Your task to perform on an android device: toggle improve location accuracy Image 0: 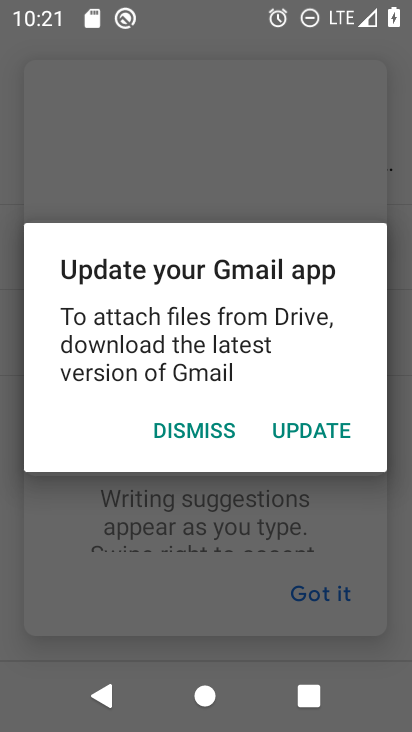
Step 0: press home button
Your task to perform on an android device: toggle improve location accuracy Image 1: 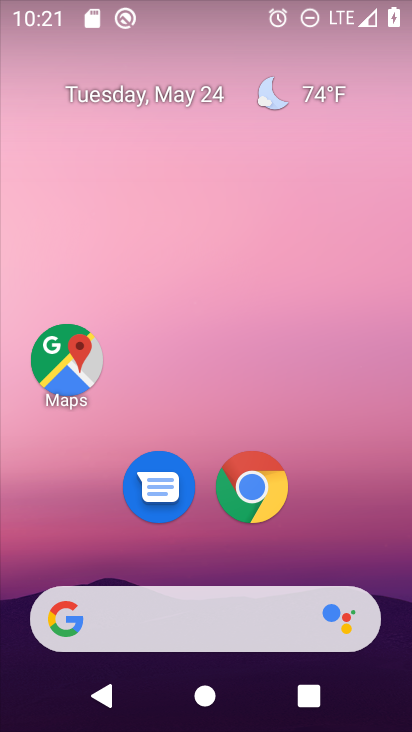
Step 1: drag from (371, 572) to (389, 12)
Your task to perform on an android device: toggle improve location accuracy Image 2: 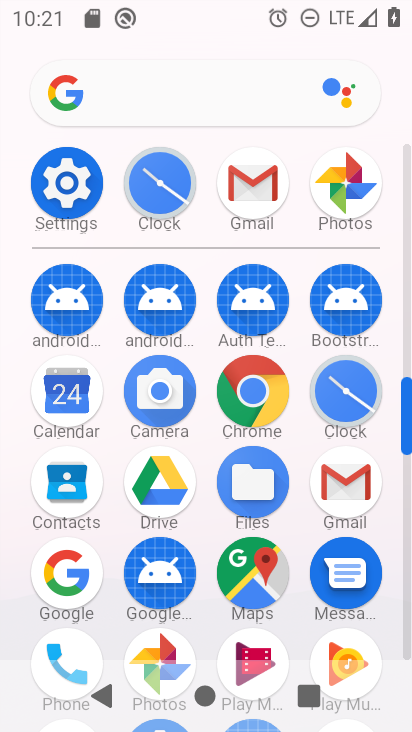
Step 2: click (62, 179)
Your task to perform on an android device: toggle improve location accuracy Image 3: 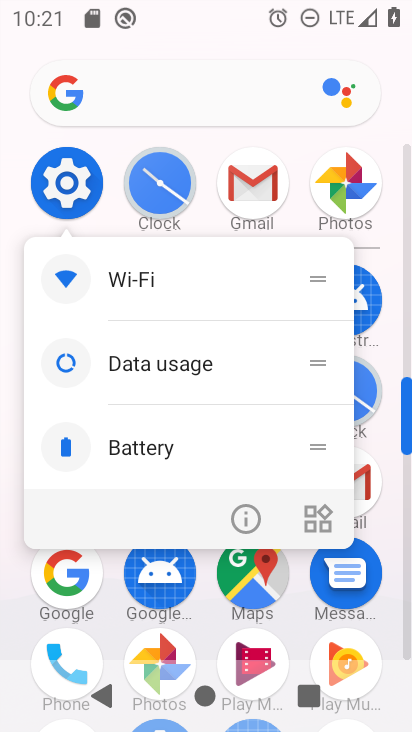
Step 3: click (68, 188)
Your task to perform on an android device: toggle improve location accuracy Image 4: 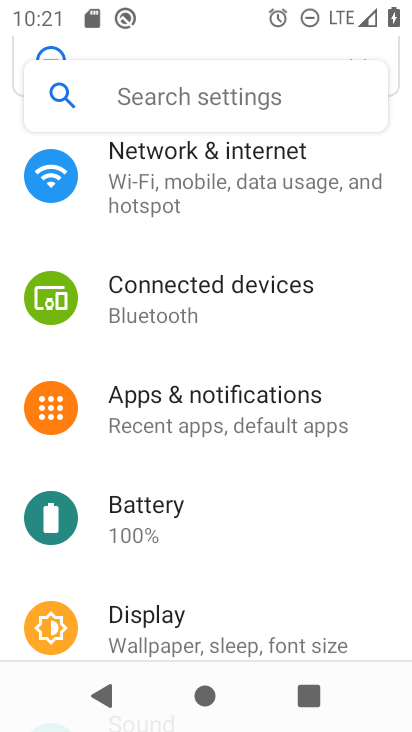
Step 4: drag from (358, 505) to (313, 72)
Your task to perform on an android device: toggle improve location accuracy Image 5: 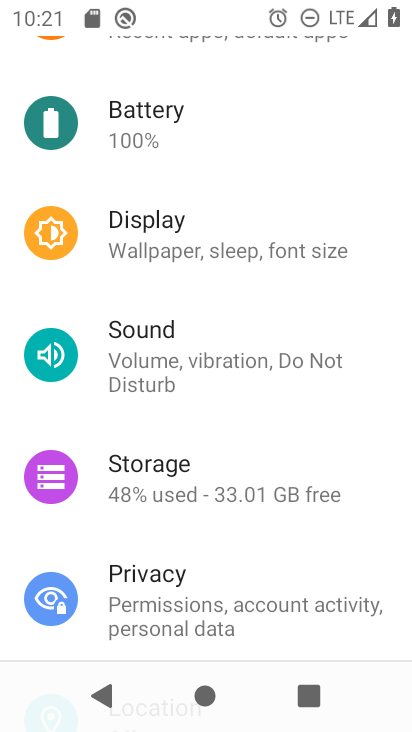
Step 5: drag from (316, 465) to (280, 72)
Your task to perform on an android device: toggle improve location accuracy Image 6: 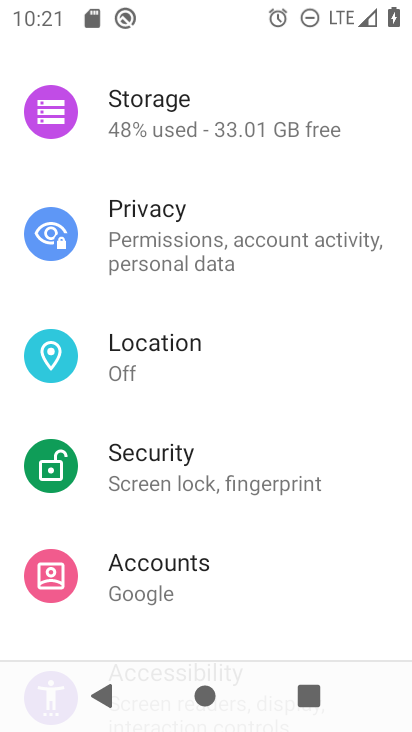
Step 6: click (109, 361)
Your task to perform on an android device: toggle improve location accuracy Image 7: 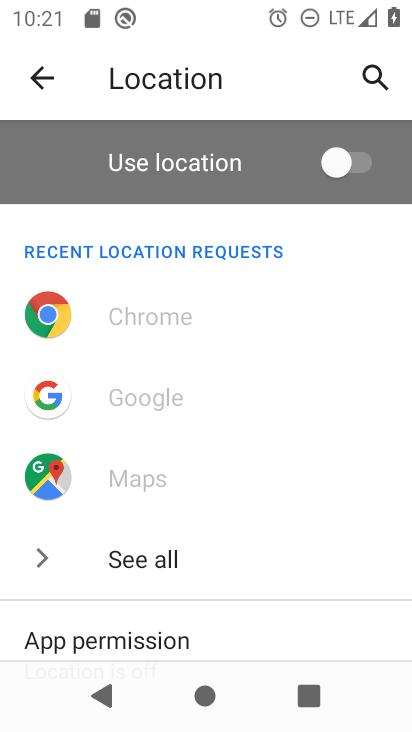
Step 7: drag from (278, 601) to (245, 15)
Your task to perform on an android device: toggle improve location accuracy Image 8: 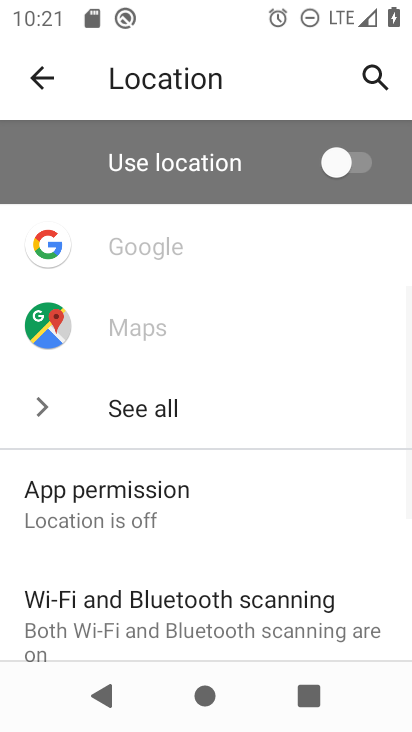
Step 8: drag from (299, 425) to (266, 90)
Your task to perform on an android device: toggle improve location accuracy Image 9: 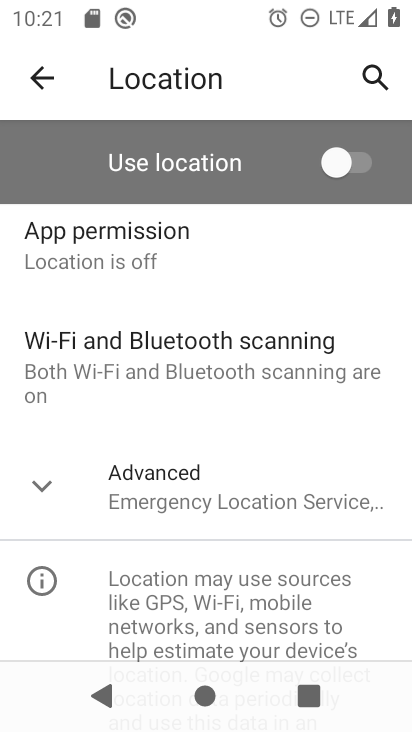
Step 9: click (42, 493)
Your task to perform on an android device: toggle improve location accuracy Image 10: 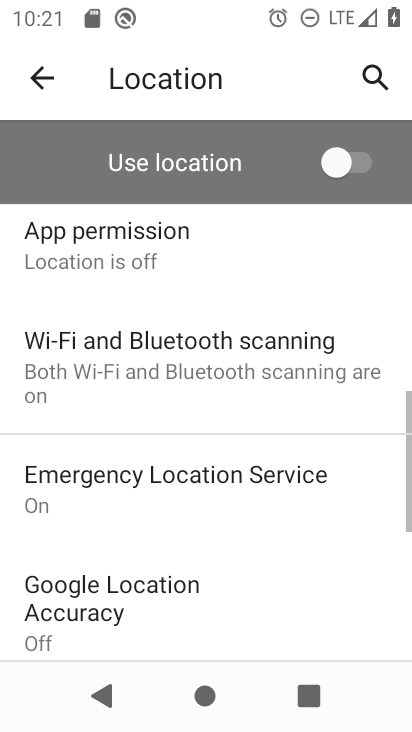
Step 10: drag from (236, 541) to (221, 218)
Your task to perform on an android device: toggle improve location accuracy Image 11: 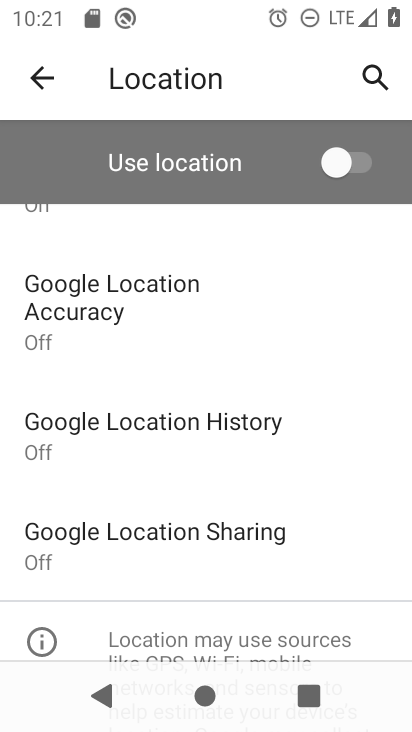
Step 11: click (81, 303)
Your task to perform on an android device: toggle improve location accuracy Image 12: 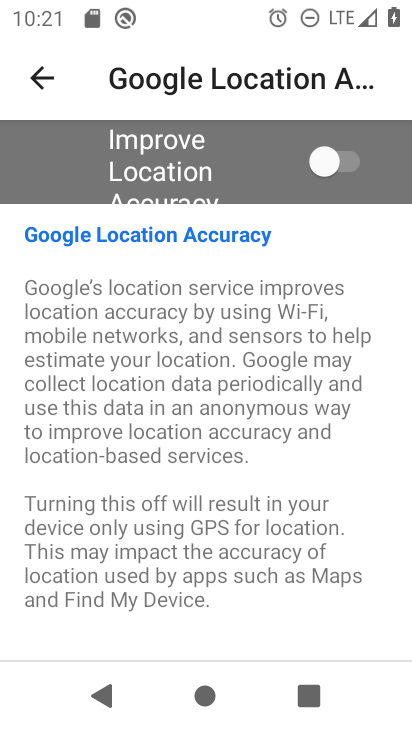
Step 12: click (330, 165)
Your task to perform on an android device: toggle improve location accuracy Image 13: 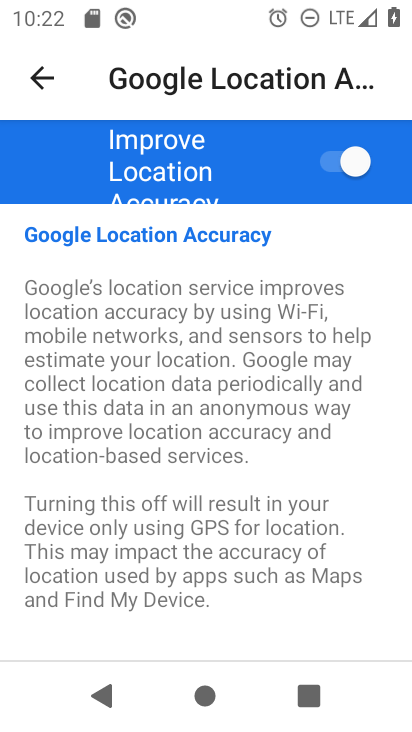
Step 13: task complete